Your task to perform on an android device: see tabs open on other devices in the chrome app Image 0: 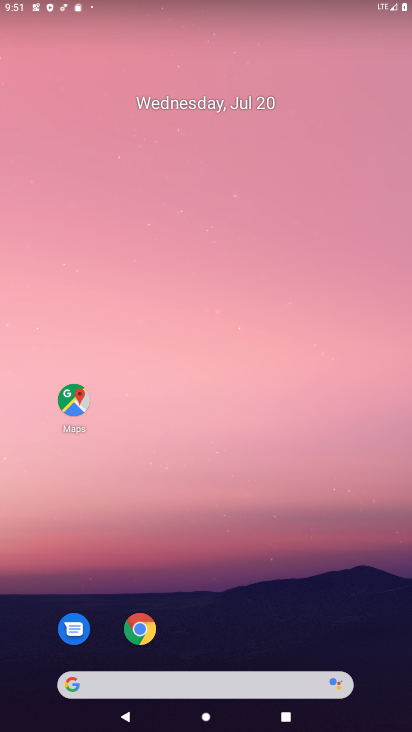
Step 0: drag from (238, 624) to (342, 103)
Your task to perform on an android device: see tabs open on other devices in the chrome app Image 1: 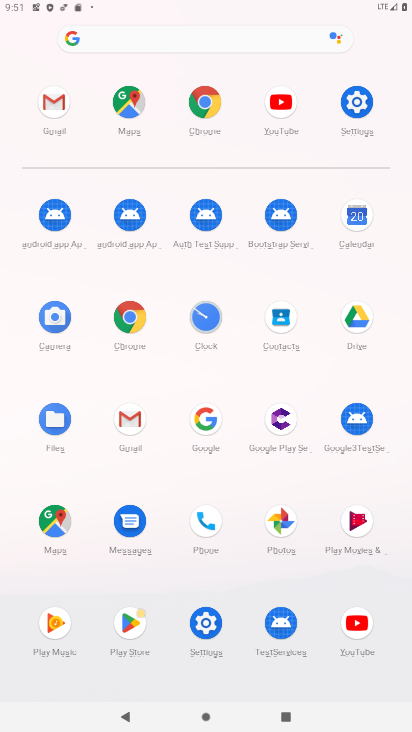
Step 1: click (125, 310)
Your task to perform on an android device: see tabs open on other devices in the chrome app Image 2: 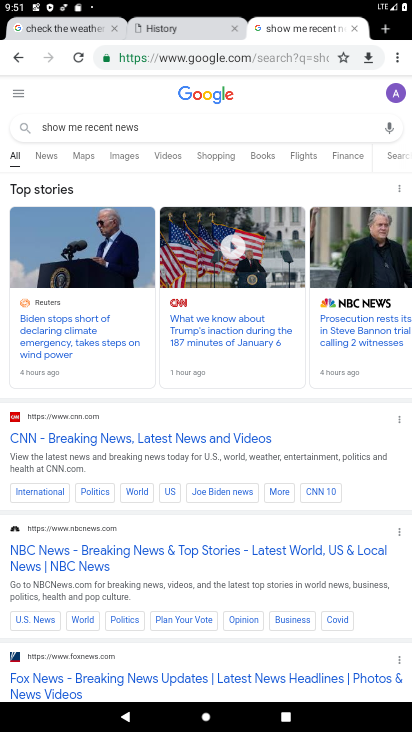
Step 2: task complete